Your task to perform on an android device: change the clock display to digital Image 0: 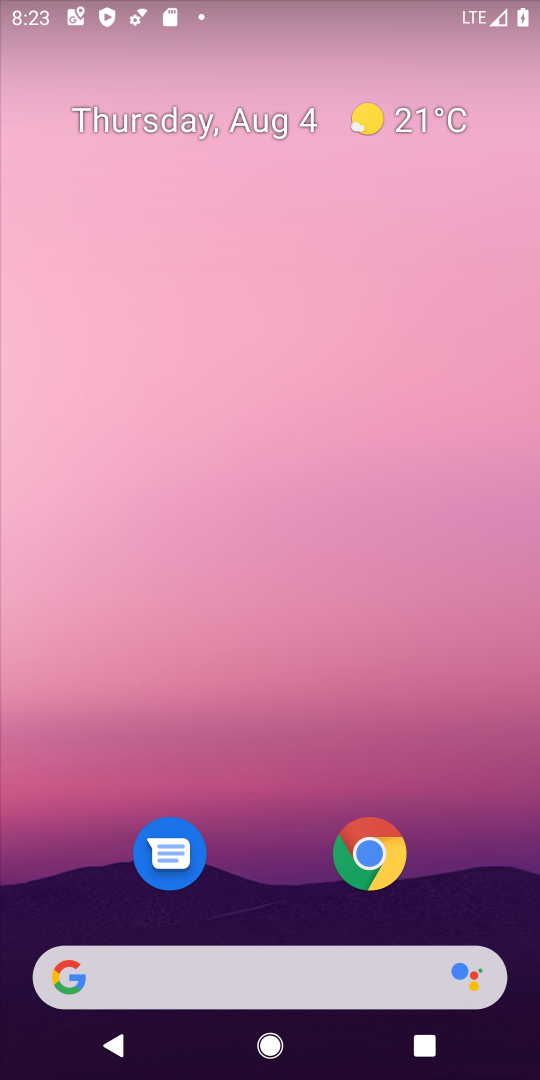
Step 0: drag from (256, 954) to (0, 323)
Your task to perform on an android device: change the clock display to digital Image 1: 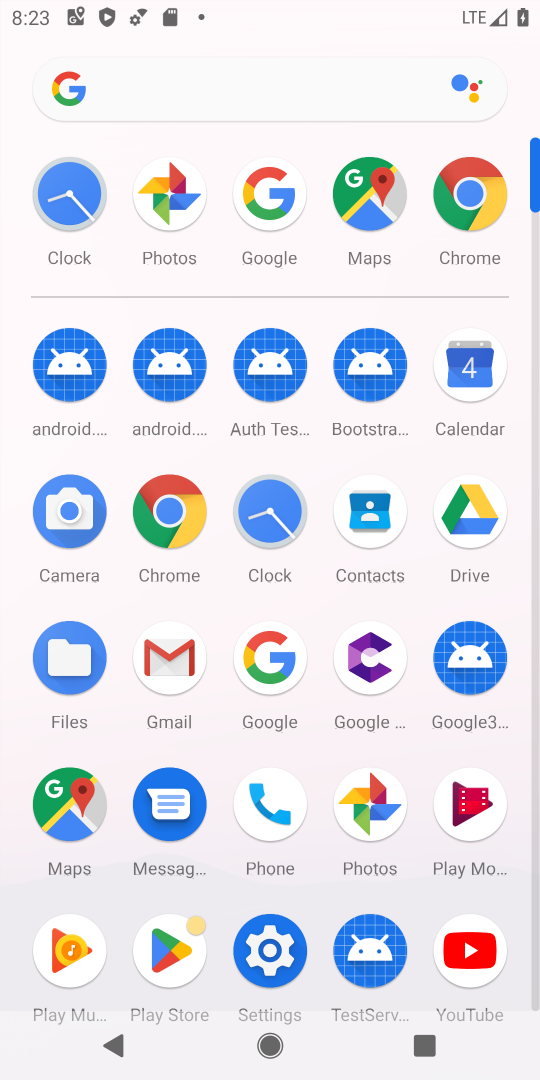
Step 1: click (48, 189)
Your task to perform on an android device: change the clock display to digital Image 2: 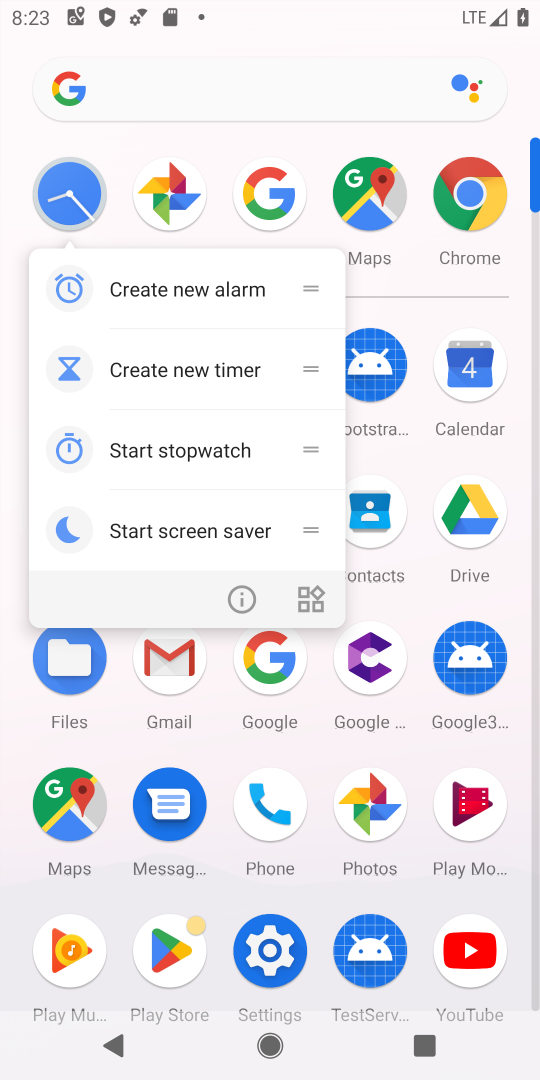
Step 2: click (48, 189)
Your task to perform on an android device: change the clock display to digital Image 3: 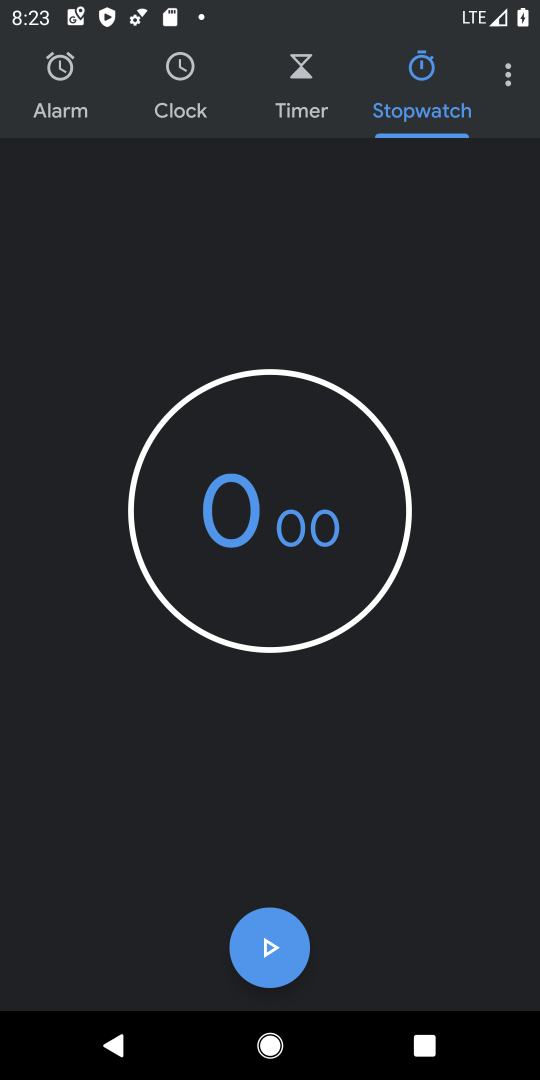
Step 3: click (493, 75)
Your task to perform on an android device: change the clock display to digital Image 4: 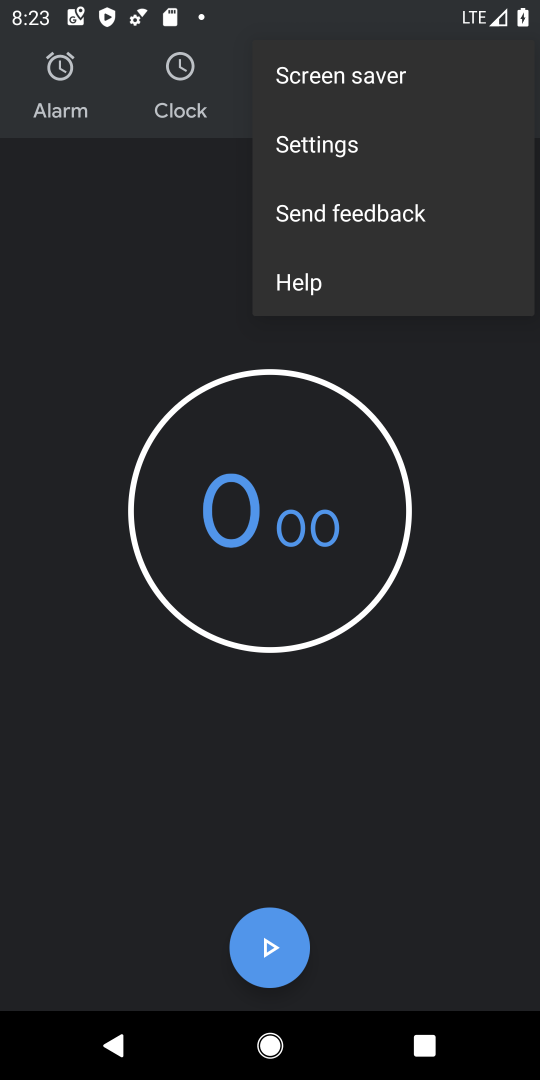
Step 4: click (335, 162)
Your task to perform on an android device: change the clock display to digital Image 5: 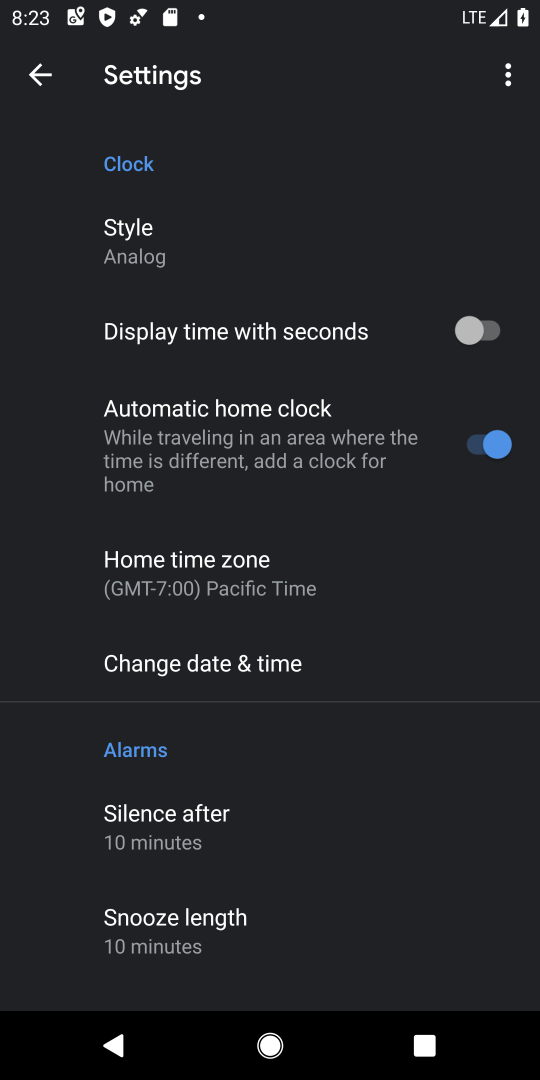
Step 5: click (98, 246)
Your task to perform on an android device: change the clock display to digital Image 6: 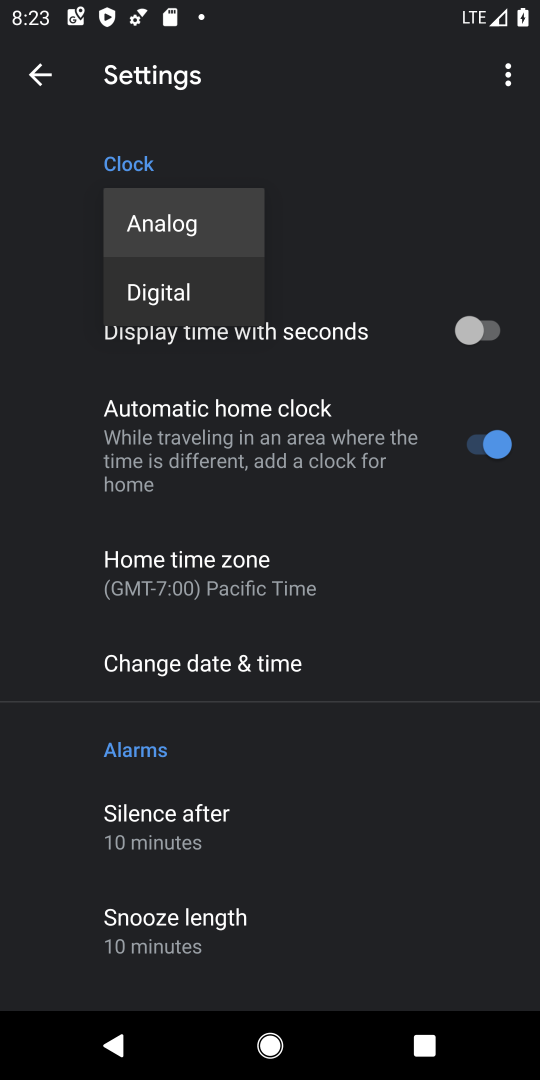
Step 6: click (152, 307)
Your task to perform on an android device: change the clock display to digital Image 7: 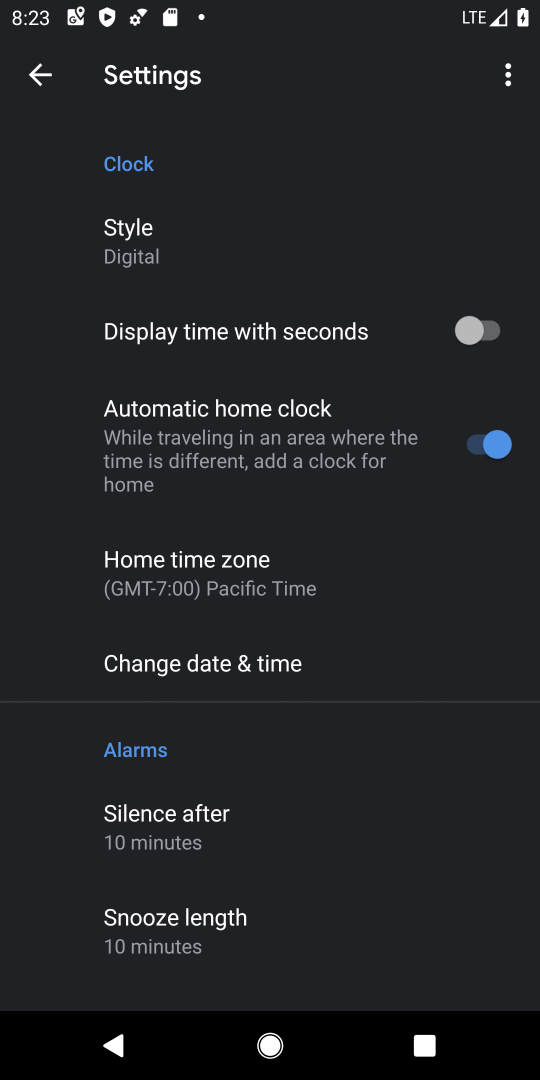
Step 7: task complete